Your task to perform on an android device: Is it going to rain tomorrow? Image 0: 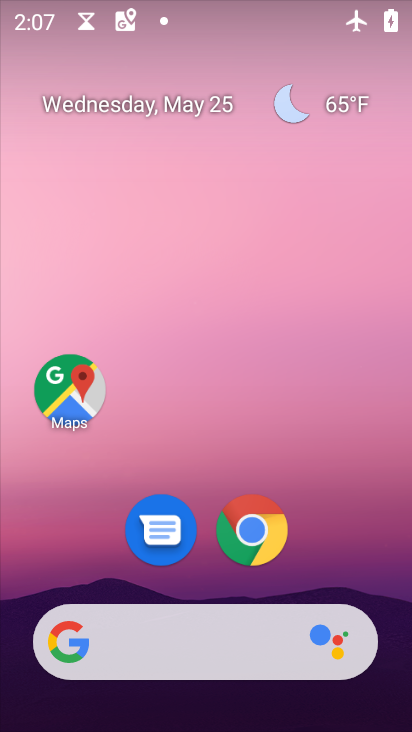
Step 0: click (253, 519)
Your task to perform on an android device: Is it going to rain tomorrow? Image 1: 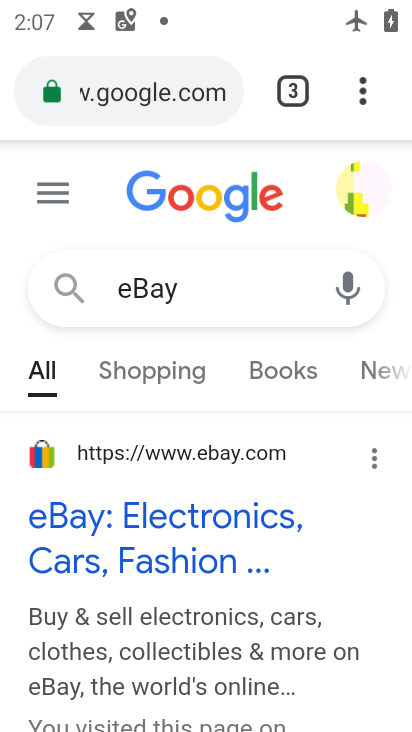
Step 1: click (357, 85)
Your task to perform on an android device: Is it going to rain tomorrow? Image 2: 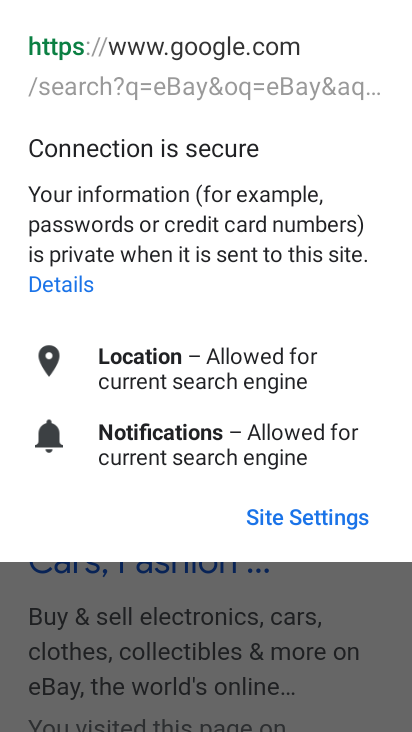
Step 2: press back button
Your task to perform on an android device: Is it going to rain tomorrow? Image 3: 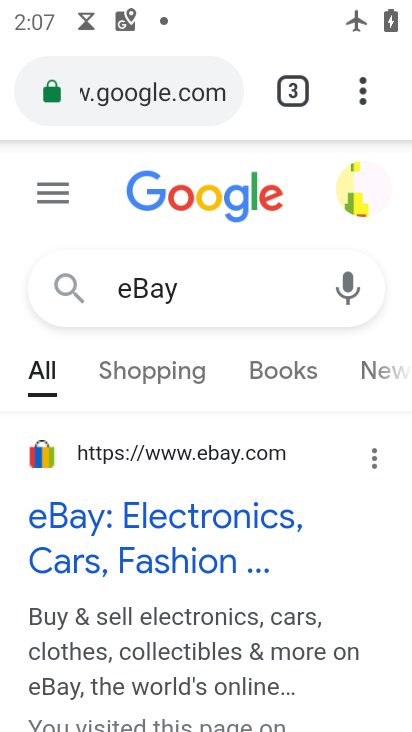
Step 3: click (351, 73)
Your task to perform on an android device: Is it going to rain tomorrow? Image 4: 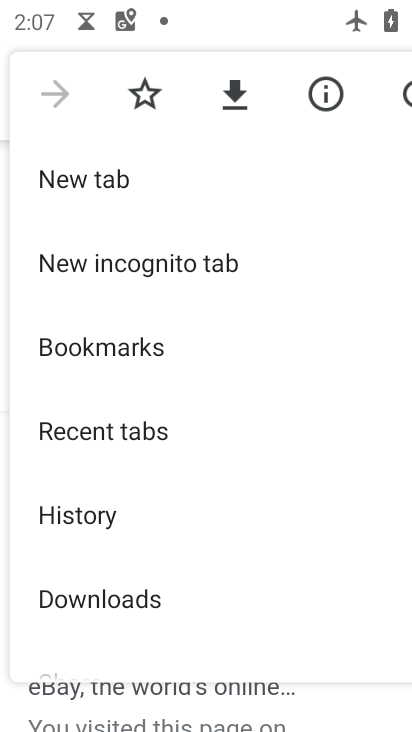
Step 4: click (131, 178)
Your task to perform on an android device: Is it going to rain tomorrow? Image 5: 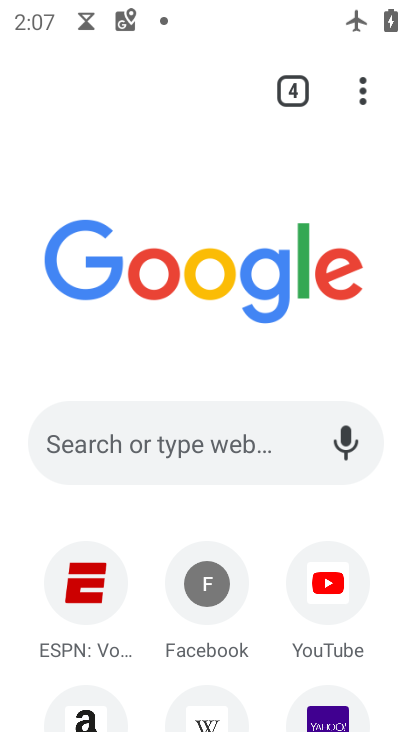
Step 5: click (187, 449)
Your task to perform on an android device: Is it going to rain tomorrow? Image 6: 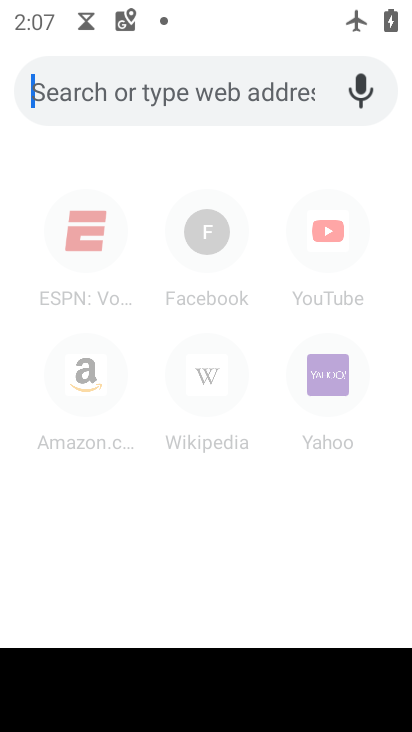
Step 6: type "Is it going to rain tomorrow?"
Your task to perform on an android device: Is it going to rain tomorrow? Image 7: 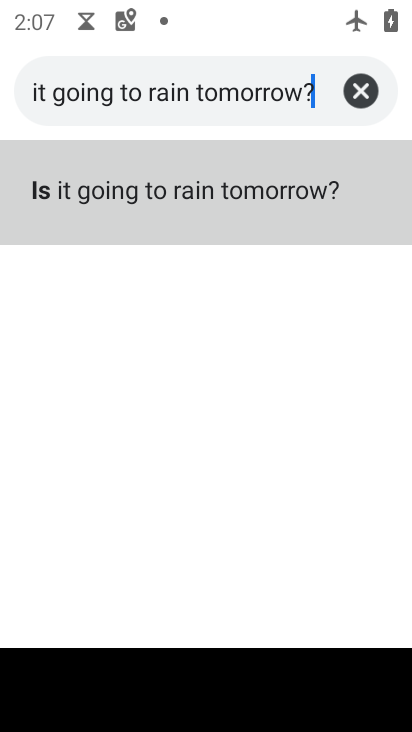
Step 7: click (191, 178)
Your task to perform on an android device: Is it going to rain tomorrow? Image 8: 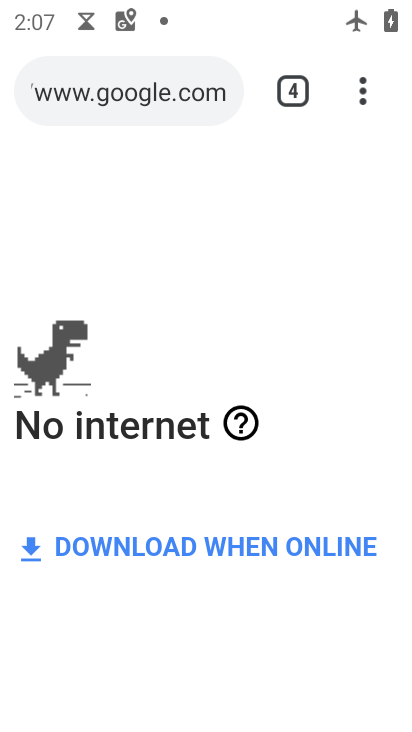
Step 8: task complete